Your task to perform on an android device: turn vacation reply on in the gmail app Image 0: 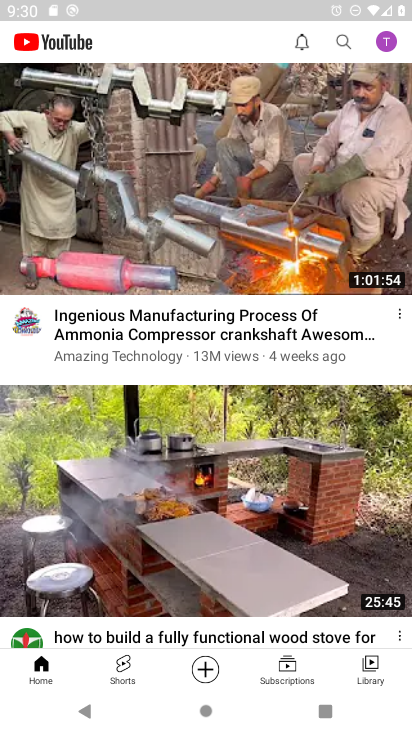
Step 0: press home button
Your task to perform on an android device: turn vacation reply on in the gmail app Image 1: 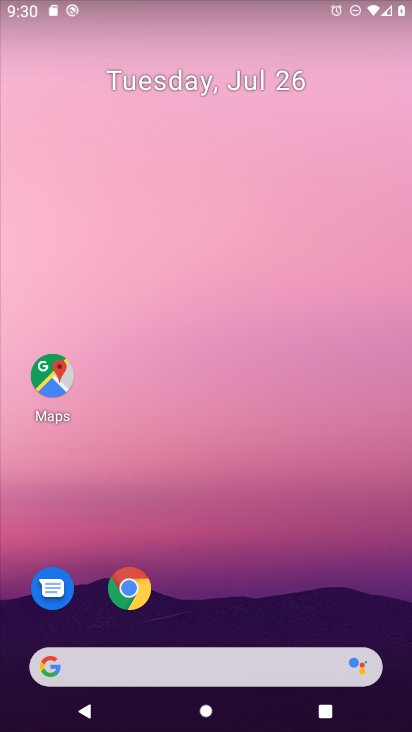
Step 1: drag from (240, 666) to (278, 221)
Your task to perform on an android device: turn vacation reply on in the gmail app Image 2: 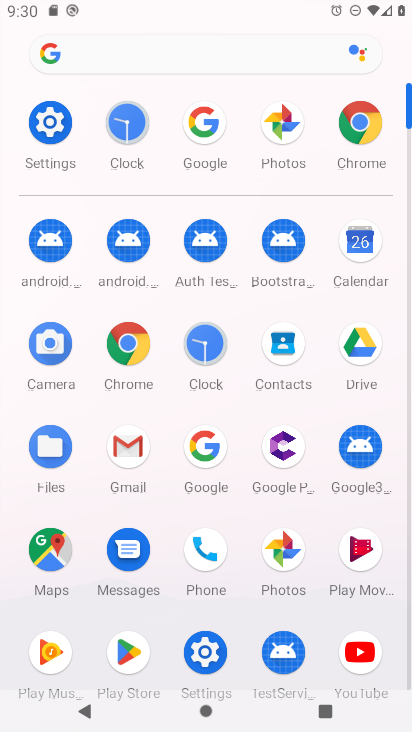
Step 2: click (121, 462)
Your task to perform on an android device: turn vacation reply on in the gmail app Image 3: 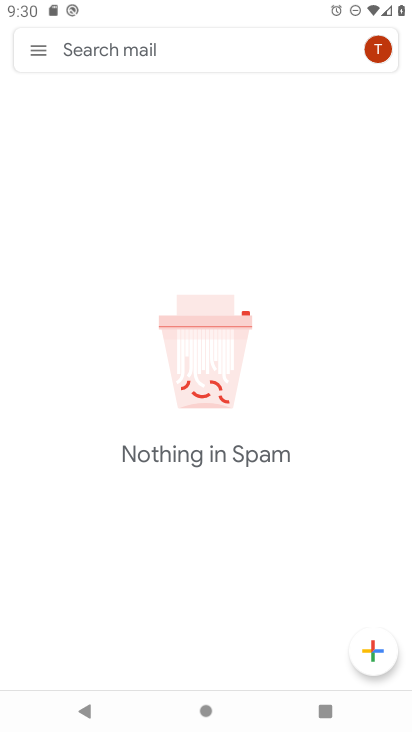
Step 3: click (37, 58)
Your task to perform on an android device: turn vacation reply on in the gmail app Image 4: 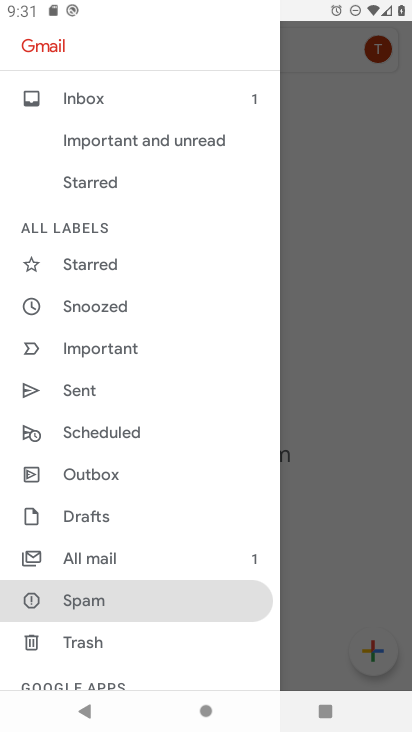
Step 4: drag from (94, 625) to (189, 331)
Your task to perform on an android device: turn vacation reply on in the gmail app Image 5: 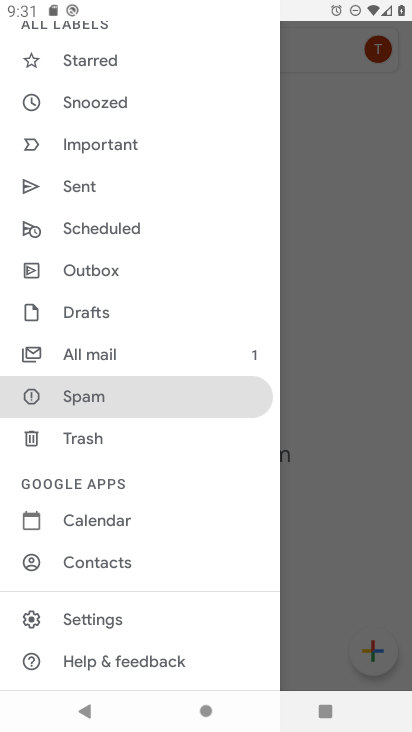
Step 5: click (64, 607)
Your task to perform on an android device: turn vacation reply on in the gmail app Image 6: 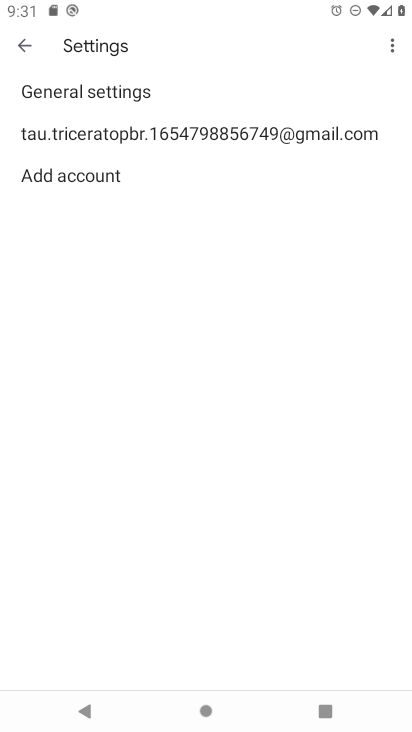
Step 6: click (161, 128)
Your task to perform on an android device: turn vacation reply on in the gmail app Image 7: 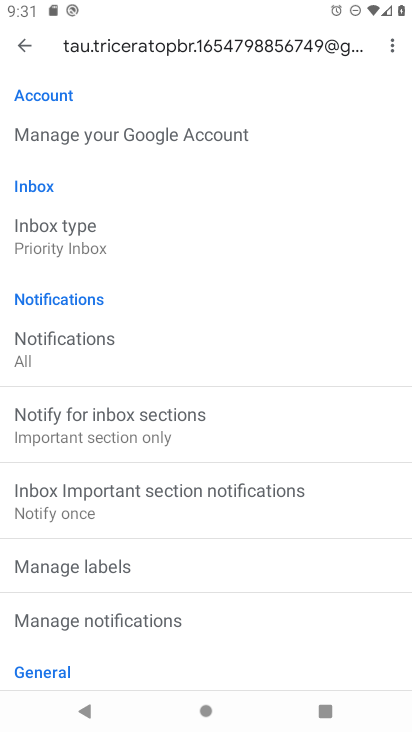
Step 7: drag from (162, 587) to (256, 183)
Your task to perform on an android device: turn vacation reply on in the gmail app Image 8: 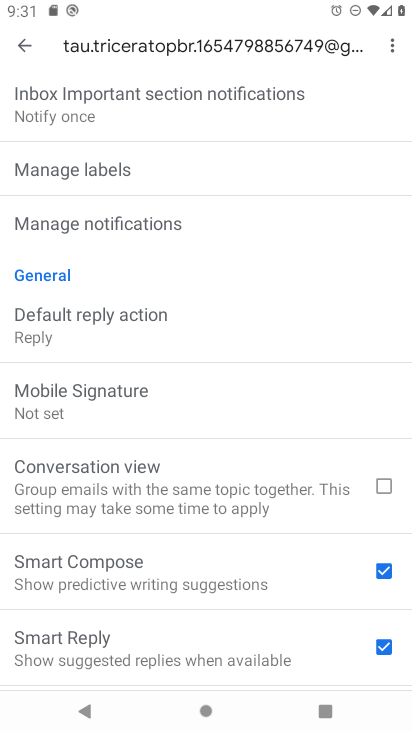
Step 8: drag from (124, 589) to (123, 248)
Your task to perform on an android device: turn vacation reply on in the gmail app Image 9: 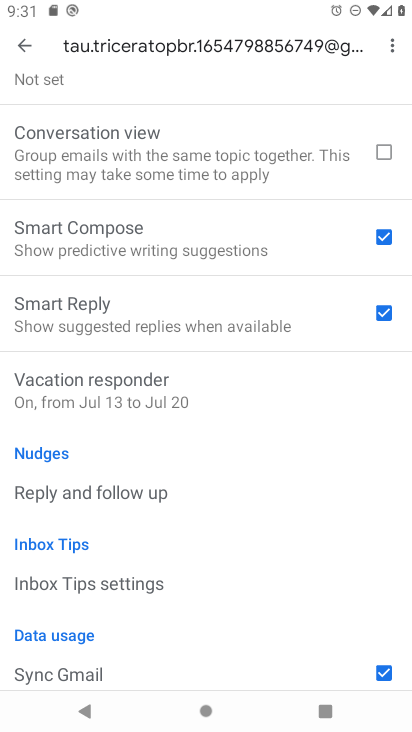
Step 9: click (114, 412)
Your task to perform on an android device: turn vacation reply on in the gmail app Image 10: 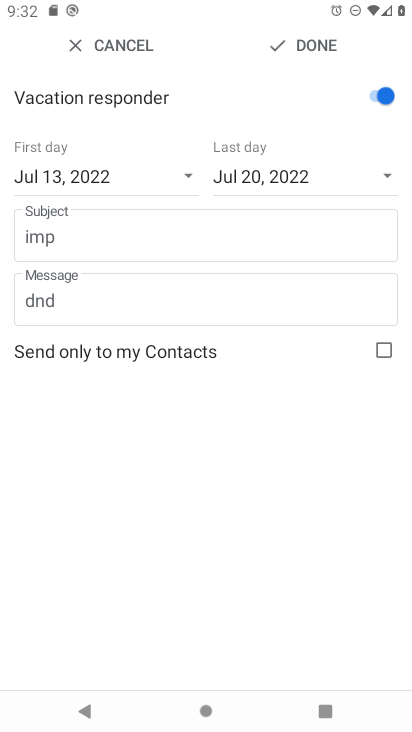
Step 10: task complete